Your task to perform on an android device: Go to settings Image 0: 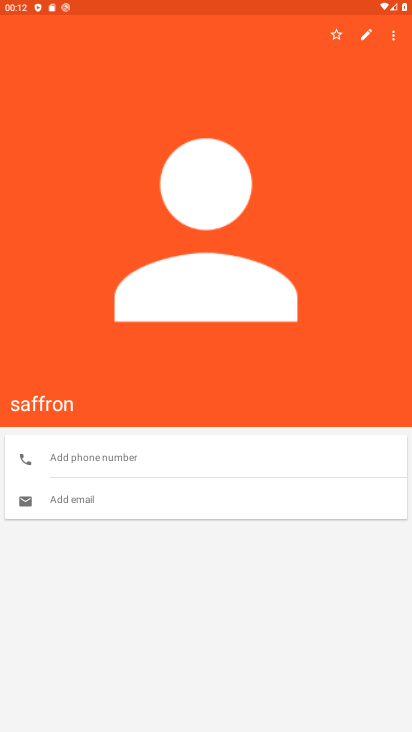
Step 0: press home button
Your task to perform on an android device: Go to settings Image 1: 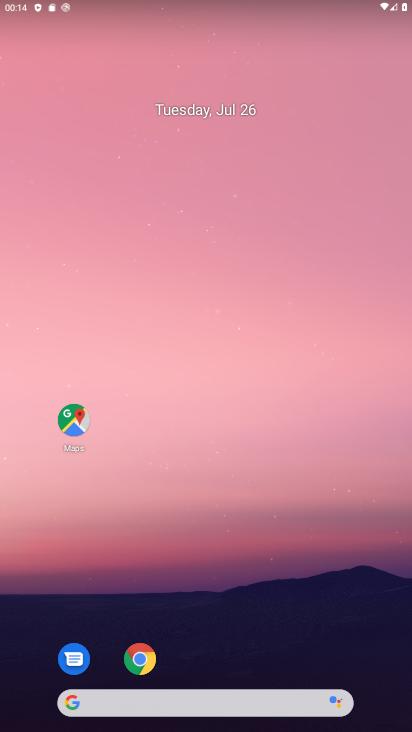
Step 1: drag from (199, 632) to (189, 80)
Your task to perform on an android device: Go to settings Image 2: 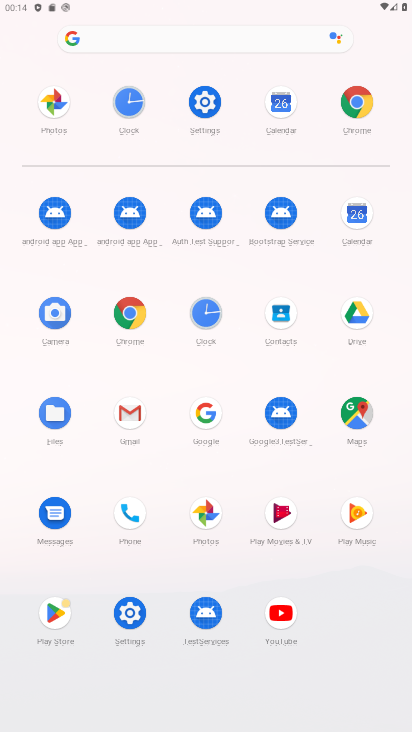
Step 2: click (199, 111)
Your task to perform on an android device: Go to settings Image 3: 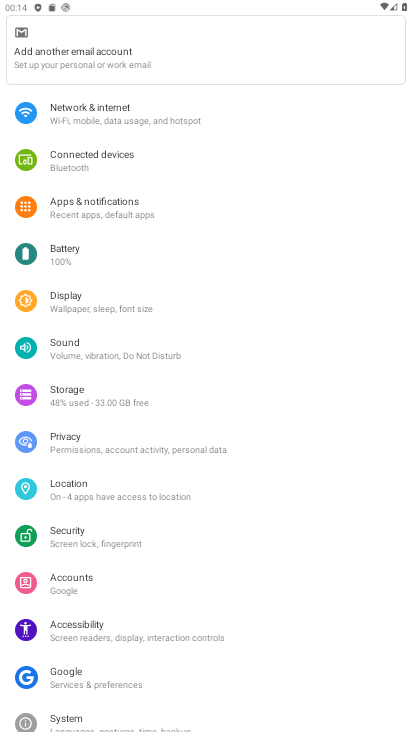
Step 3: task complete